Your task to perform on an android device: toggle translation in the chrome app Image 0: 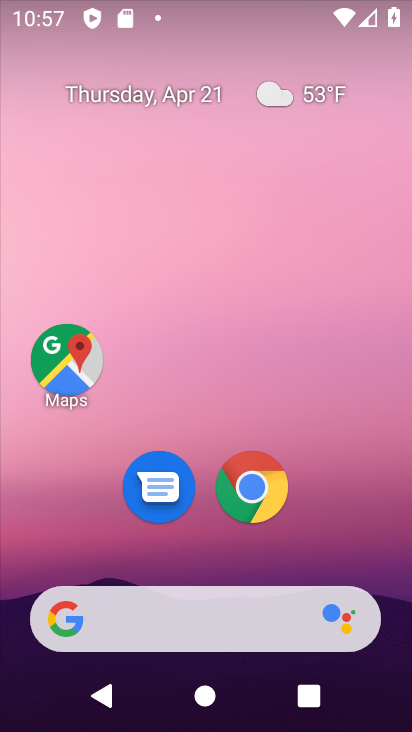
Step 0: drag from (345, 473) to (318, 127)
Your task to perform on an android device: toggle translation in the chrome app Image 1: 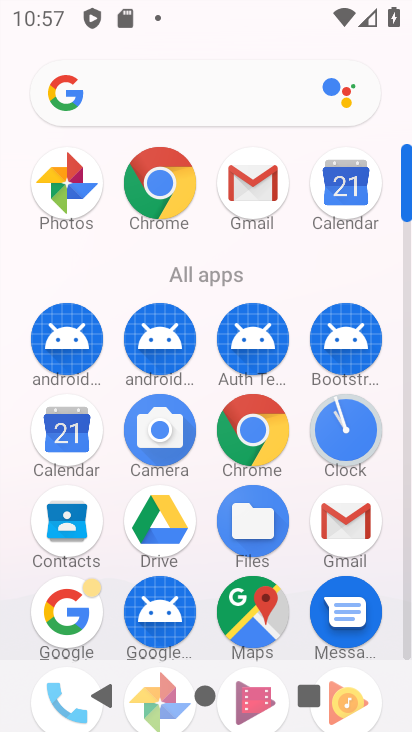
Step 1: click (157, 199)
Your task to perform on an android device: toggle translation in the chrome app Image 2: 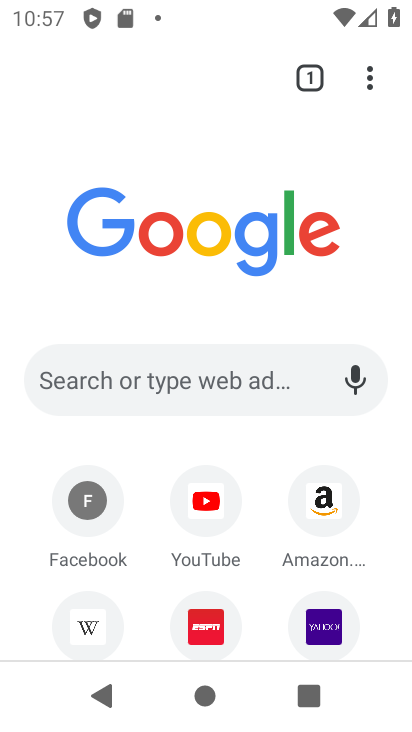
Step 2: click (381, 80)
Your task to perform on an android device: toggle translation in the chrome app Image 3: 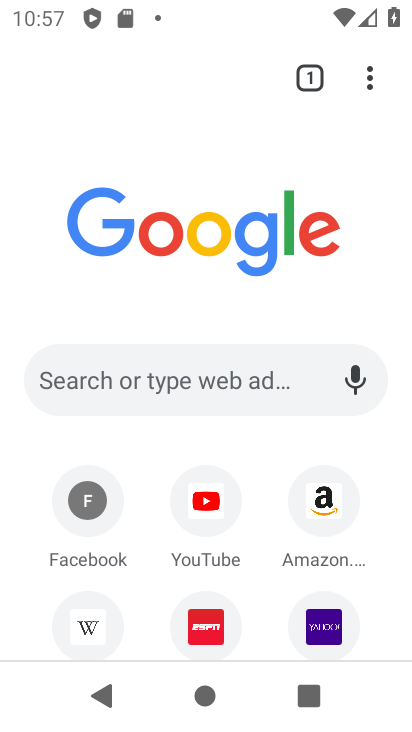
Step 3: drag from (381, 80) to (153, 544)
Your task to perform on an android device: toggle translation in the chrome app Image 4: 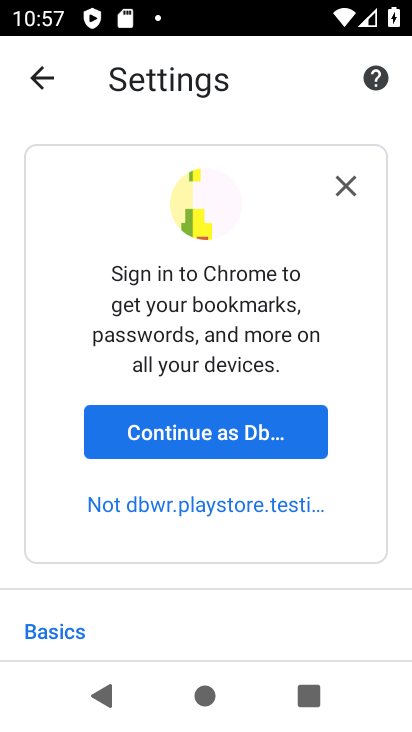
Step 4: click (198, 441)
Your task to perform on an android device: toggle translation in the chrome app Image 5: 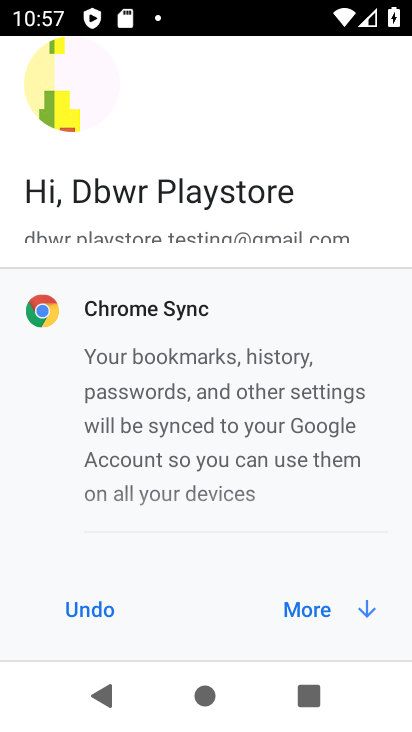
Step 5: click (310, 624)
Your task to perform on an android device: toggle translation in the chrome app Image 6: 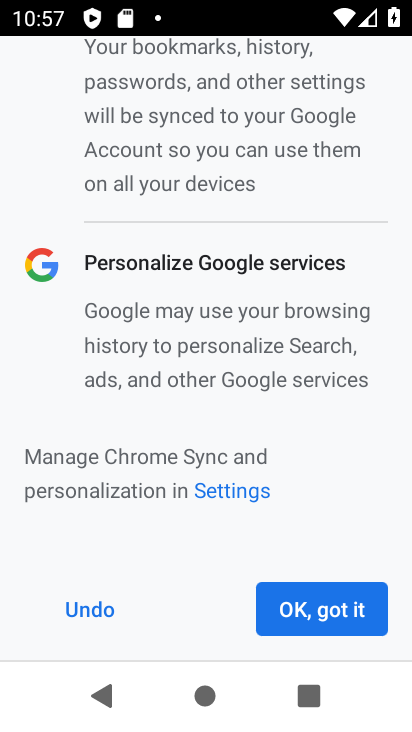
Step 6: click (310, 624)
Your task to perform on an android device: toggle translation in the chrome app Image 7: 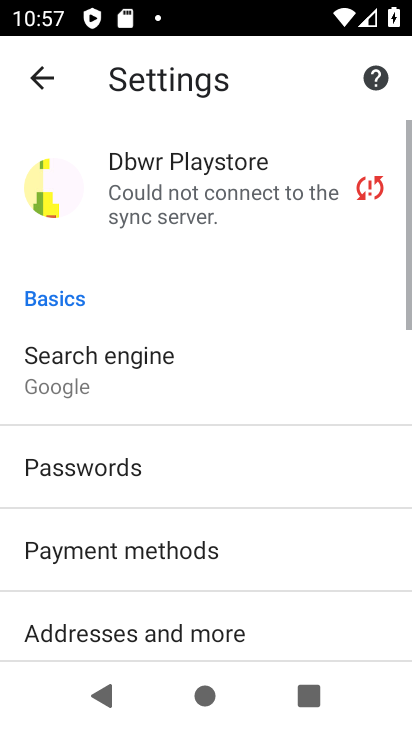
Step 7: drag from (217, 614) to (312, 183)
Your task to perform on an android device: toggle translation in the chrome app Image 8: 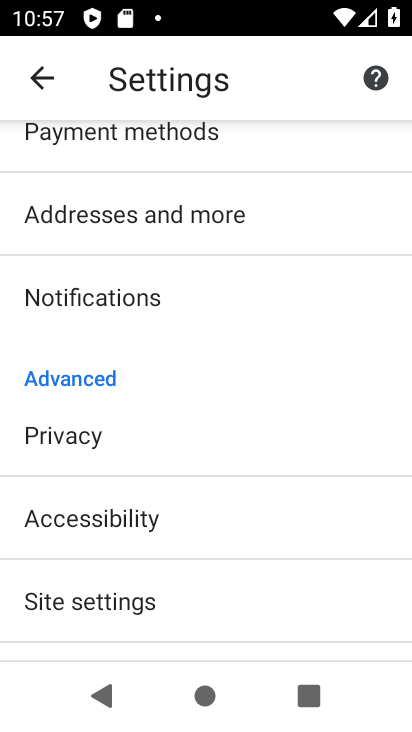
Step 8: drag from (236, 549) to (312, 165)
Your task to perform on an android device: toggle translation in the chrome app Image 9: 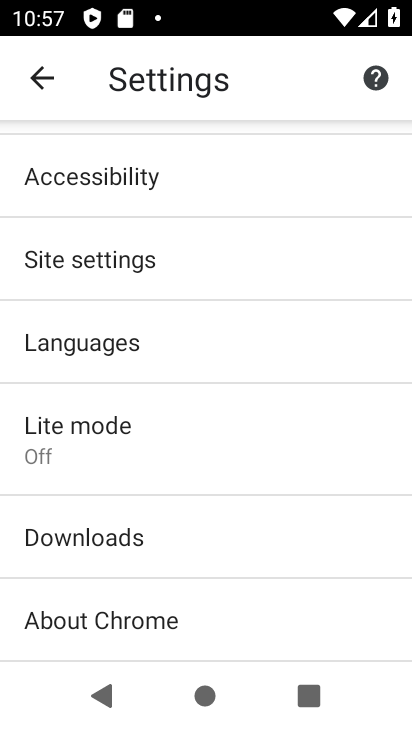
Step 9: drag from (244, 536) to (289, 191)
Your task to perform on an android device: toggle translation in the chrome app Image 10: 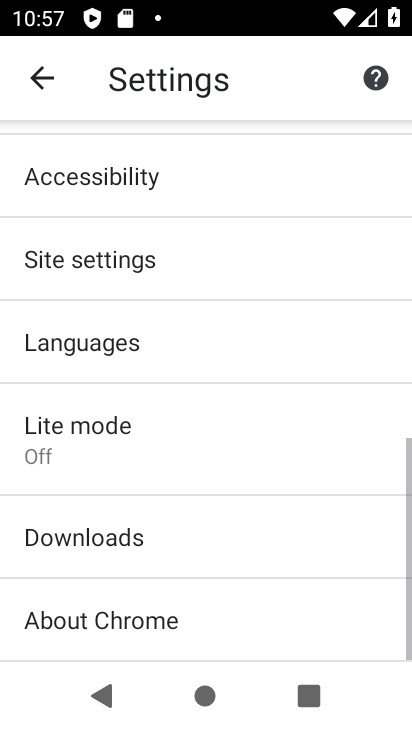
Step 10: click (87, 336)
Your task to perform on an android device: toggle translation in the chrome app Image 11: 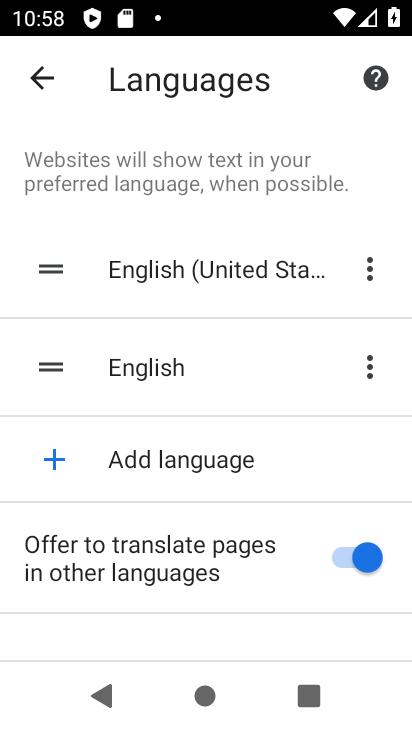
Step 11: click (343, 554)
Your task to perform on an android device: toggle translation in the chrome app Image 12: 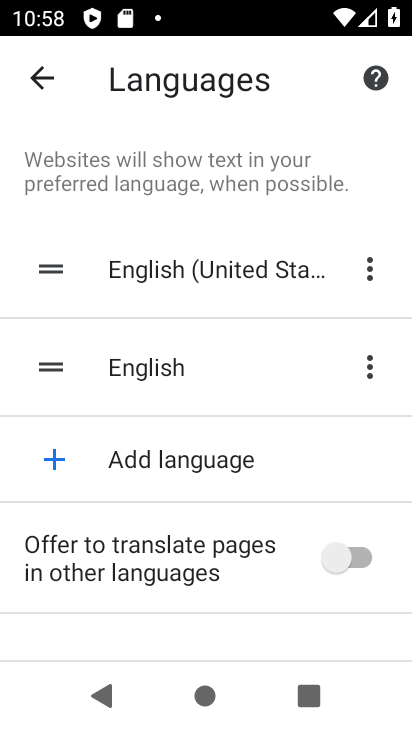
Step 12: task complete